Your task to perform on an android device: Open the stopwatch Image 0: 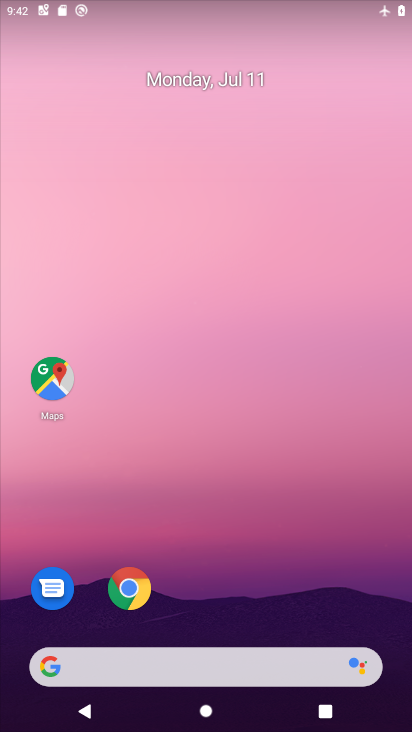
Step 0: drag from (221, 590) to (213, 148)
Your task to perform on an android device: Open the stopwatch Image 1: 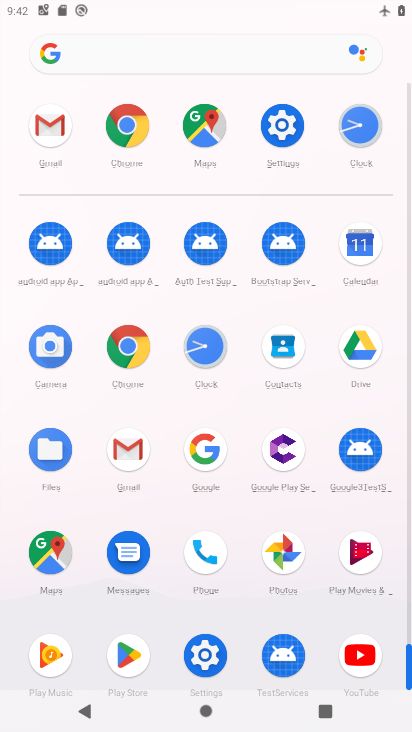
Step 1: click (208, 328)
Your task to perform on an android device: Open the stopwatch Image 2: 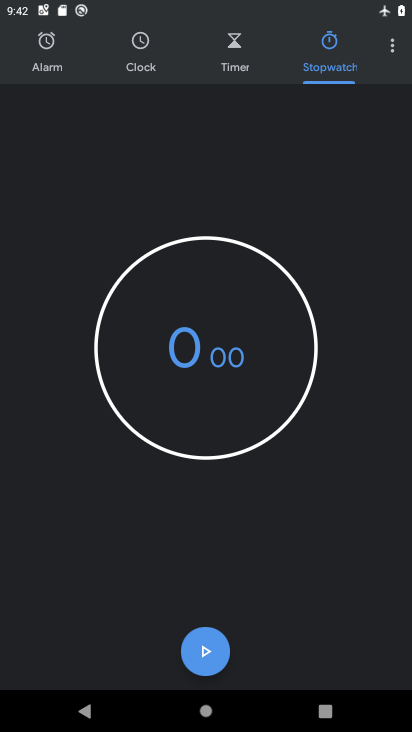
Step 2: task complete